Your task to perform on an android device: Go to settings Image 0: 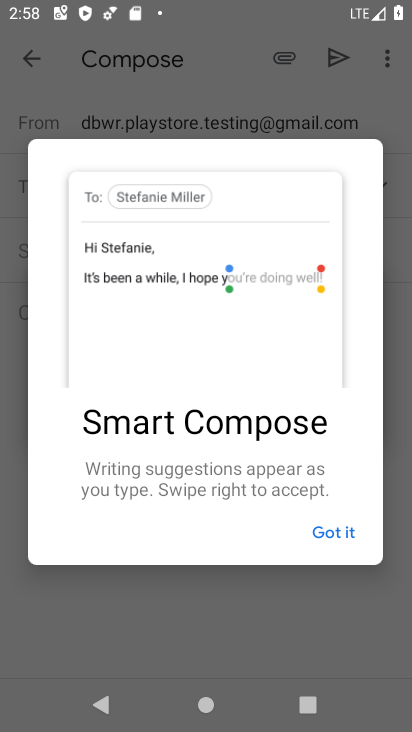
Step 0: press home button
Your task to perform on an android device: Go to settings Image 1: 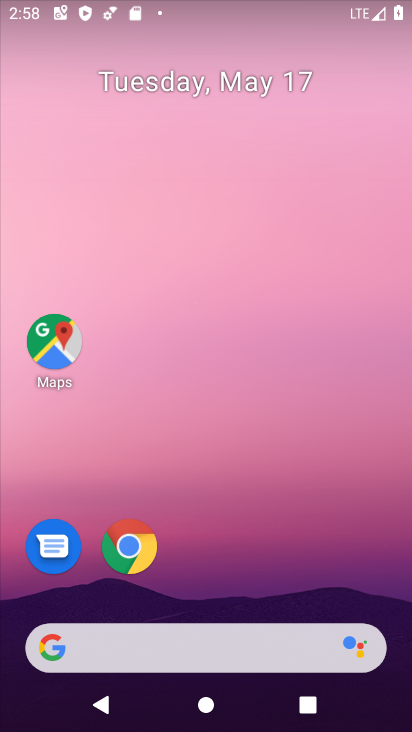
Step 1: drag from (273, 586) to (269, 51)
Your task to perform on an android device: Go to settings Image 2: 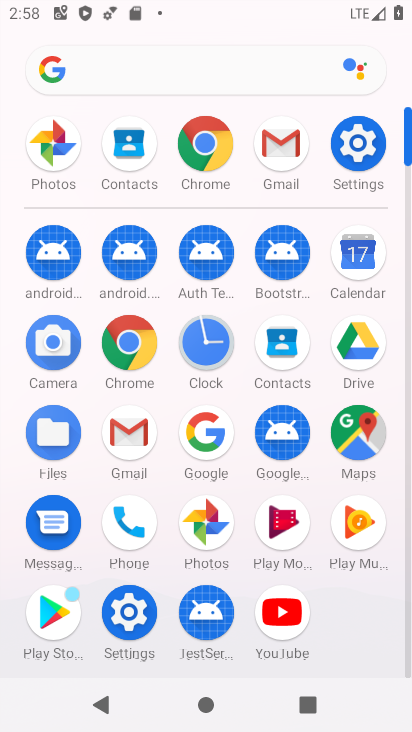
Step 2: click (134, 633)
Your task to perform on an android device: Go to settings Image 3: 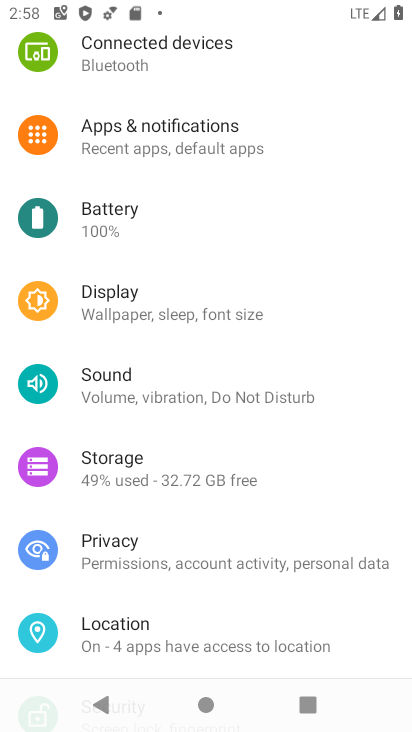
Step 3: task complete